Your task to perform on an android device: see creations saved in the google photos Image 0: 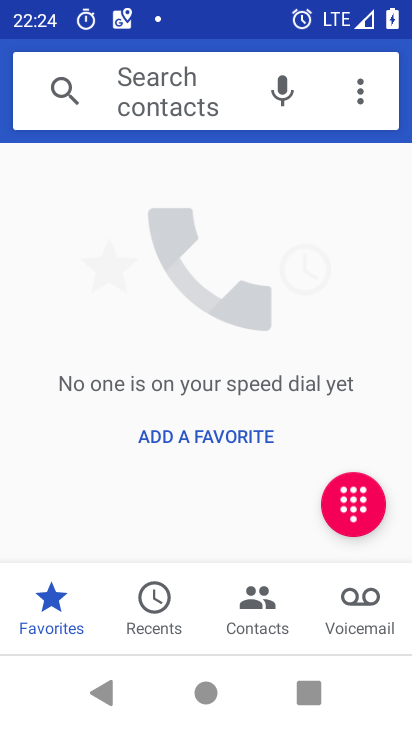
Step 0: click (302, 231)
Your task to perform on an android device: see creations saved in the google photos Image 1: 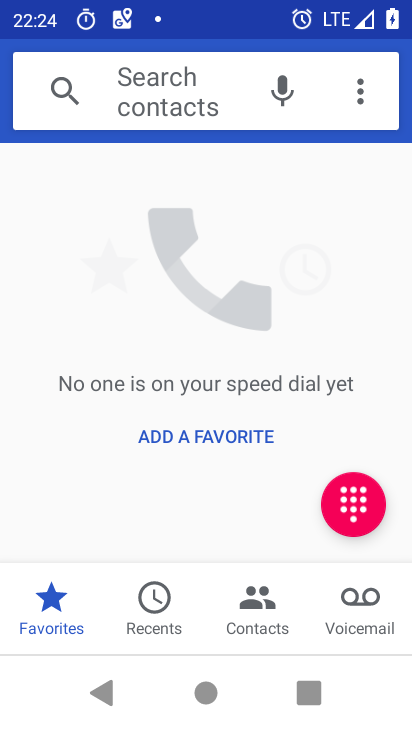
Step 1: drag from (164, 504) to (208, 332)
Your task to perform on an android device: see creations saved in the google photos Image 2: 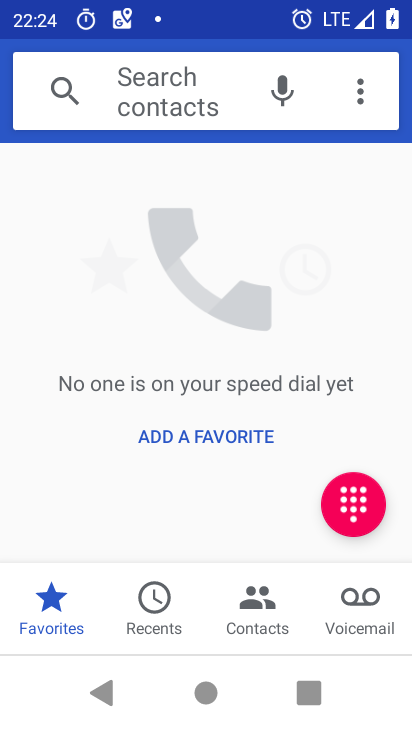
Step 2: press home button
Your task to perform on an android device: see creations saved in the google photos Image 3: 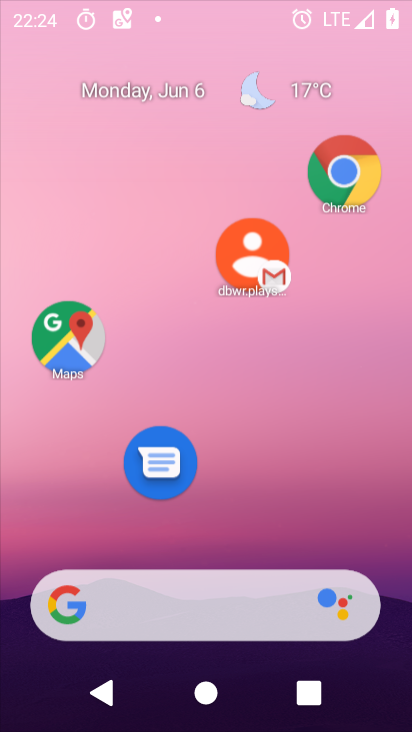
Step 3: drag from (172, 533) to (205, 107)
Your task to perform on an android device: see creations saved in the google photos Image 4: 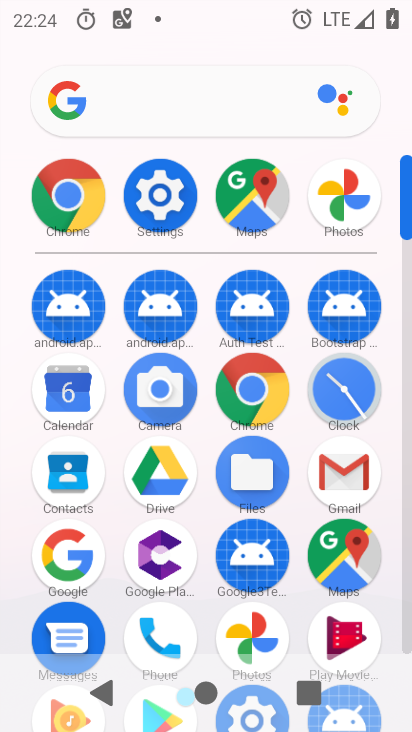
Step 4: click (239, 618)
Your task to perform on an android device: see creations saved in the google photos Image 5: 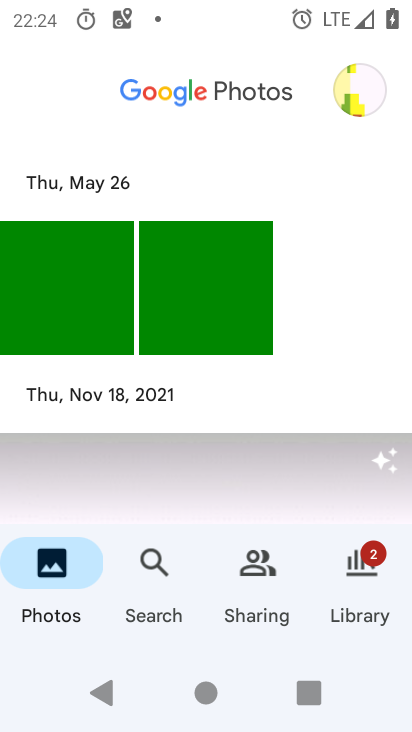
Step 5: click (134, 600)
Your task to perform on an android device: see creations saved in the google photos Image 6: 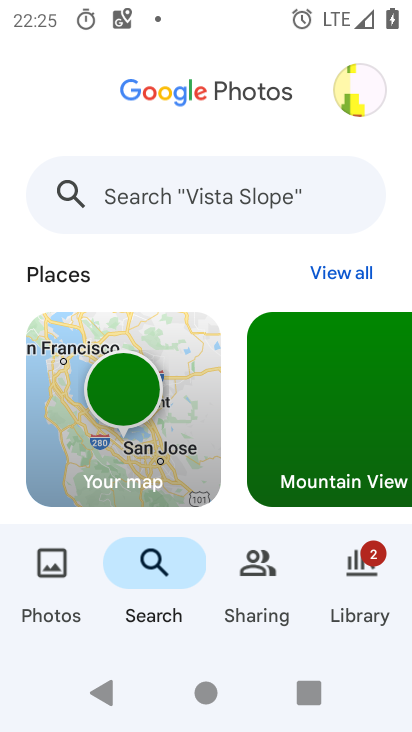
Step 6: click (124, 194)
Your task to perform on an android device: see creations saved in the google photos Image 7: 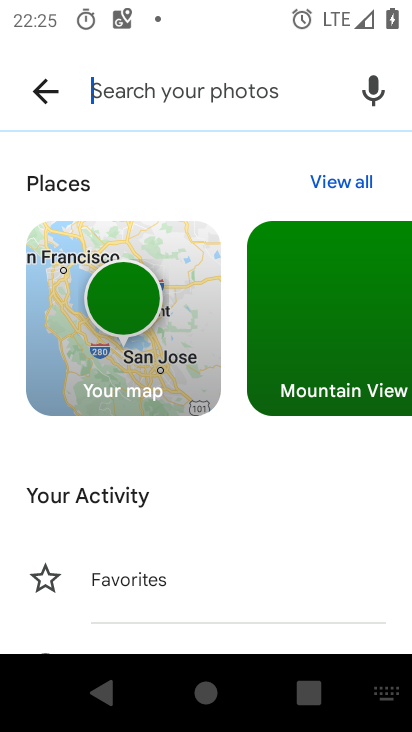
Step 7: drag from (214, 479) to (207, 0)
Your task to perform on an android device: see creations saved in the google photos Image 8: 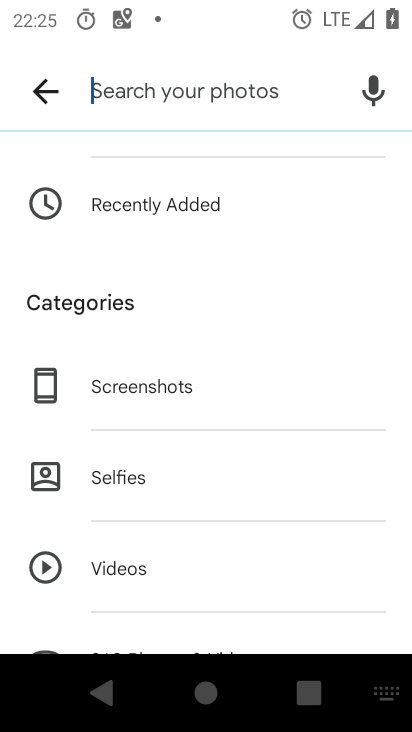
Step 8: drag from (200, 519) to (197, 71)
Your task to perform on an android device: see creations saved in the google photos Image 9: 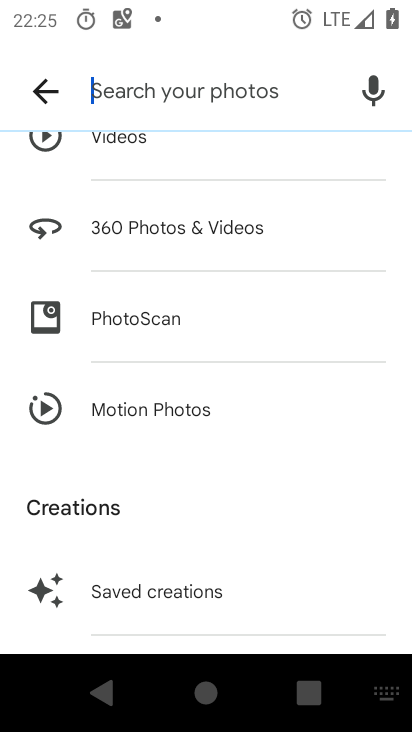
Step 9: click (128, 596)
Your task to perform on an android device: see creations saved in the google photos Image 10: 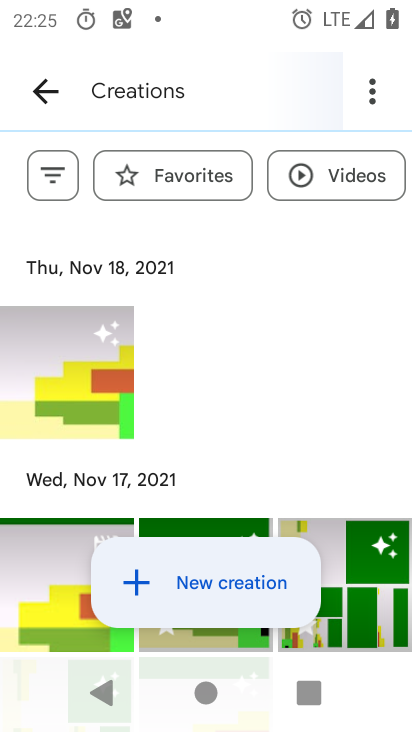
Step 10: drag from (201, 520) to (178, 5)
Your task to perform on an android device: see creations saved in the google photos Image 11: 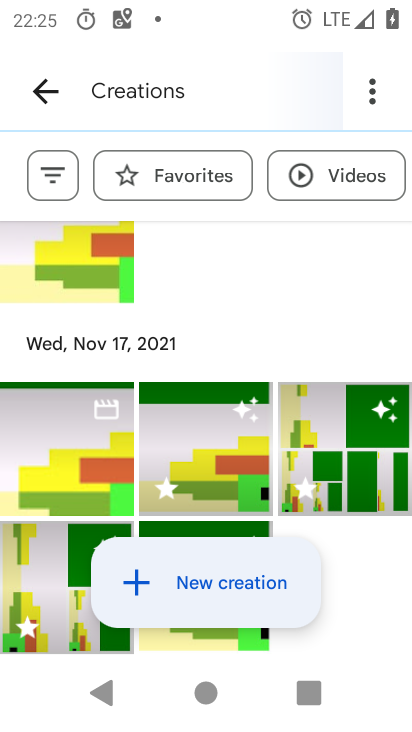
Step 11: drag from (237, 486) to (251, 47)
Your task to perform on an android device: see creations saved in the google photos Image 12: 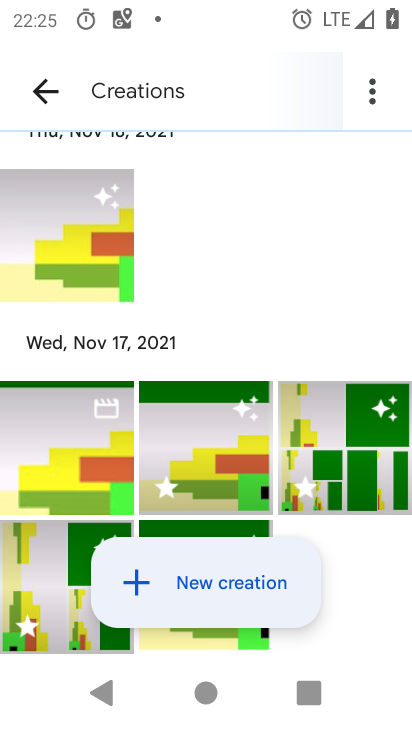
Step 12: click (94, 452)
Your task to perform on an android device: see creations saved in the google photos Image 13: 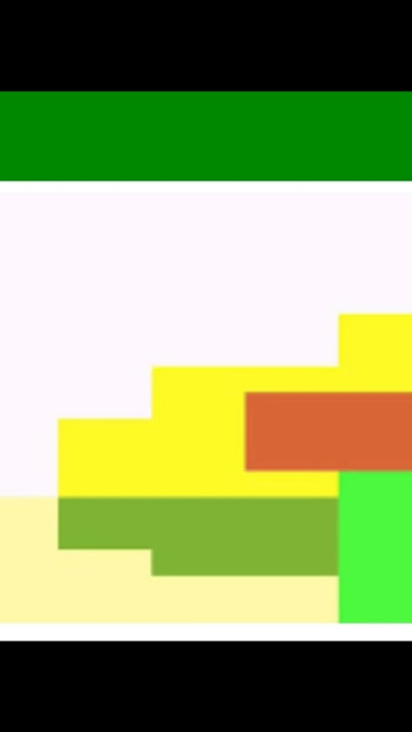
Step 13: drag from (349, 391) to (2, 384)
Your task to perform on an android device: see creations saved in the google photos Image 14: 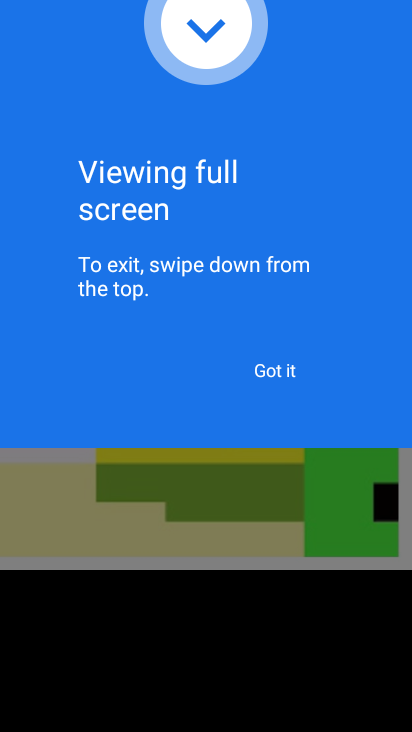
Step 14: drag from (337, 347) to (30, 359)
Your task to perform on an android device: see creations saved in the google photos Image 15: 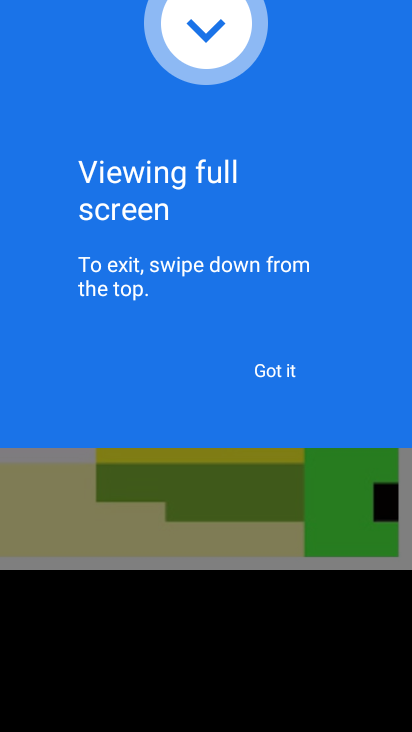
Step 15: click (266, 390)
Your task to perform on an android device: see creations saved in the google photos Image 16: 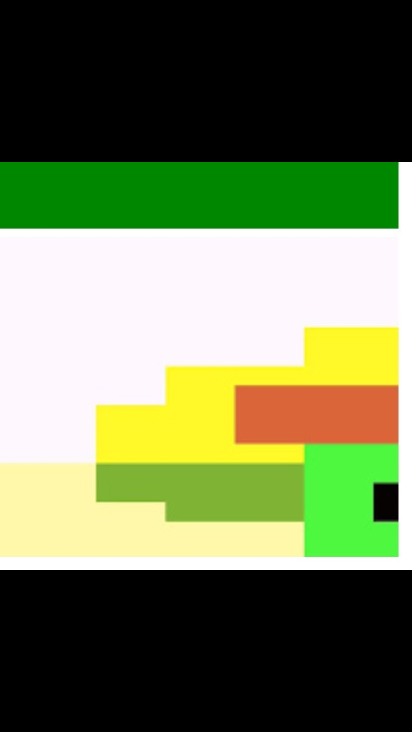
Step 16: task complete